Your task to perform on an android device: What's on my calendar tomorrow? Image 0: 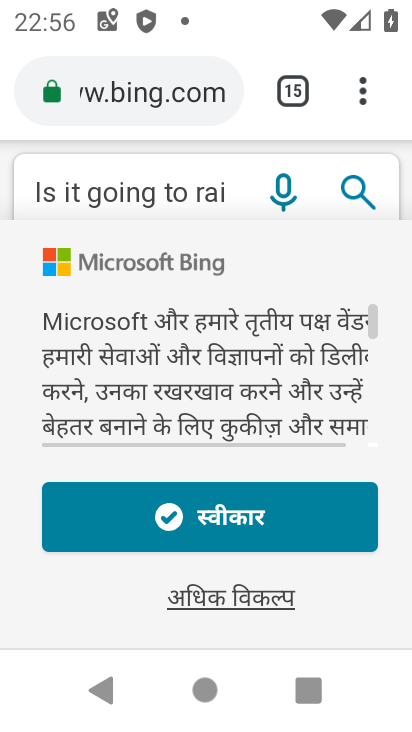
Step 0: press home button
Your task to perform on an android device: What's on my calendar tomorrow? Image 1: 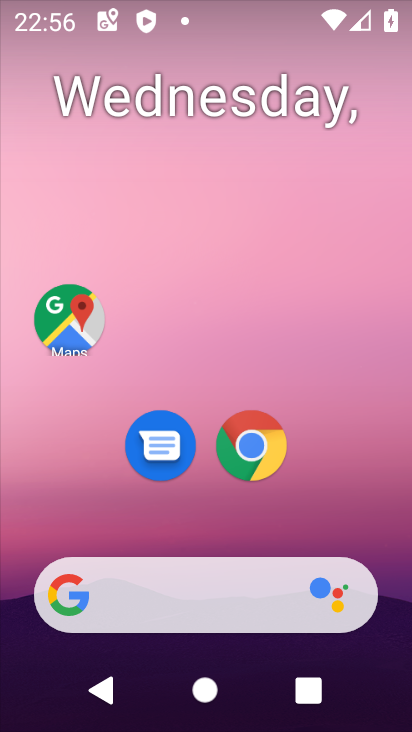
Step 1: drag from (331, 447) to (323, 148)
Your task to perform on an android device: What's on my calendar tomorrow? Image 2: 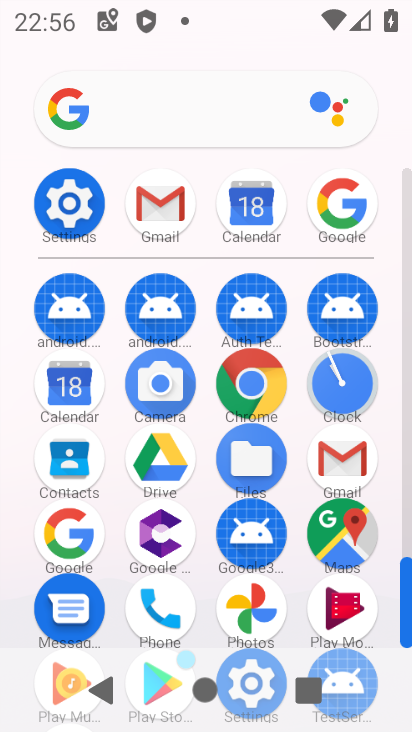
Step 2: click (51, 370)
Your task to perform on an android device: What's on my calendar tomorrow? Image 3: 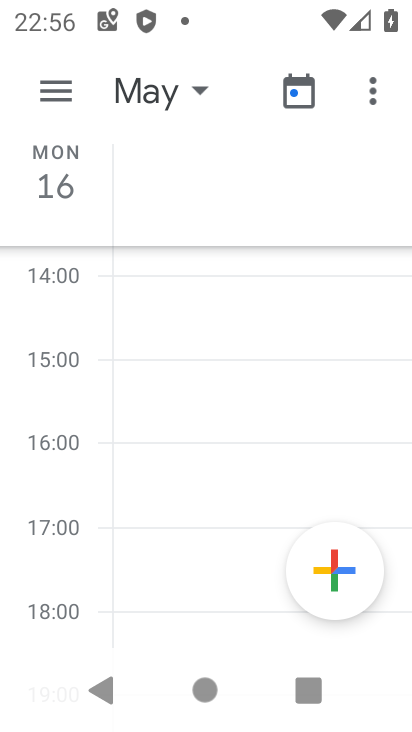
Step 3: click (65, 85)
Your task to perform on an android device: What's on my calendar tomorrow? Image 4: 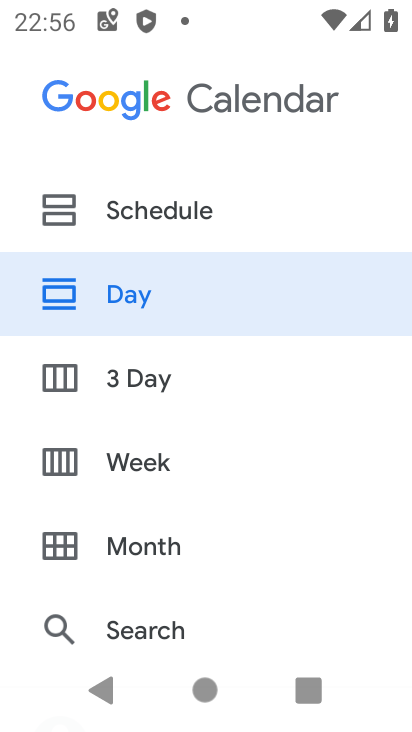
Step 4: click (161, 538)
Your task to perform on an android device: What's on my calendar tomorrow? Image 5: 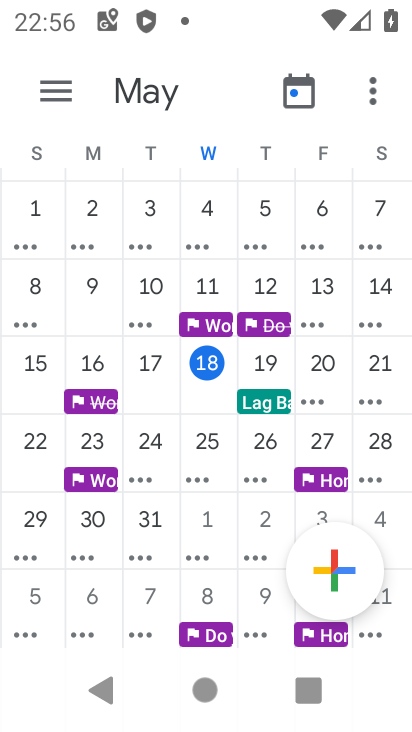
Step 5: click (309, 357)
Your task to perform on an android device: What's on my calendar tomorrow? Image 6: 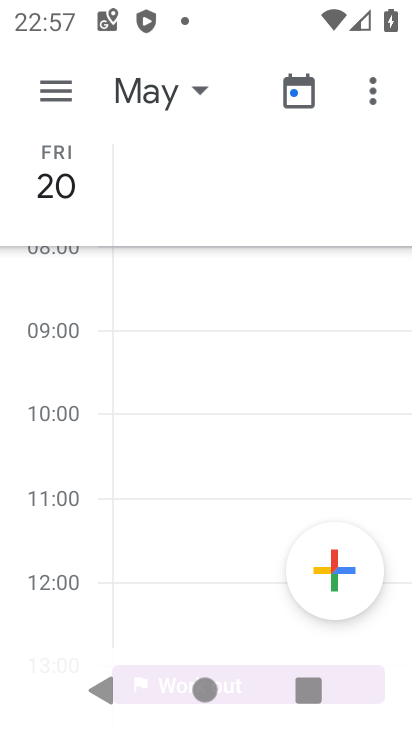
Step 6: task complete